Your task to perform on an android device: Go to Google Image 0: 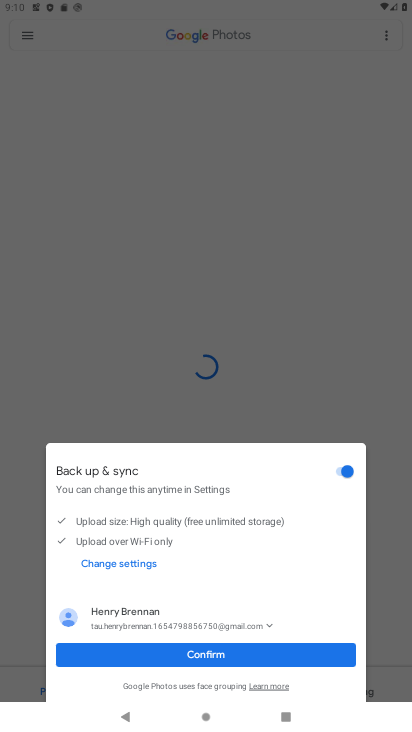
Step 0: press home button
Your task to perform on an android device: Go to Google Image 1: 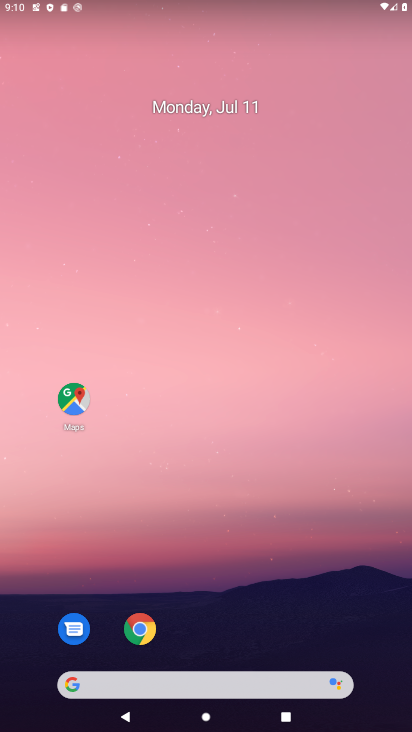
Step 1: click (97, 678)
Your task to perform on an android device: Go to Google Image 2: 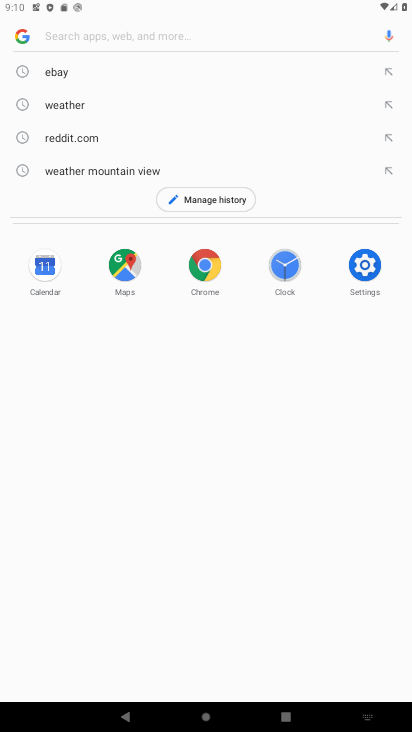
Step 2: task complete